Your task to perform on an android device: change the clock display to show seconds Image 0: 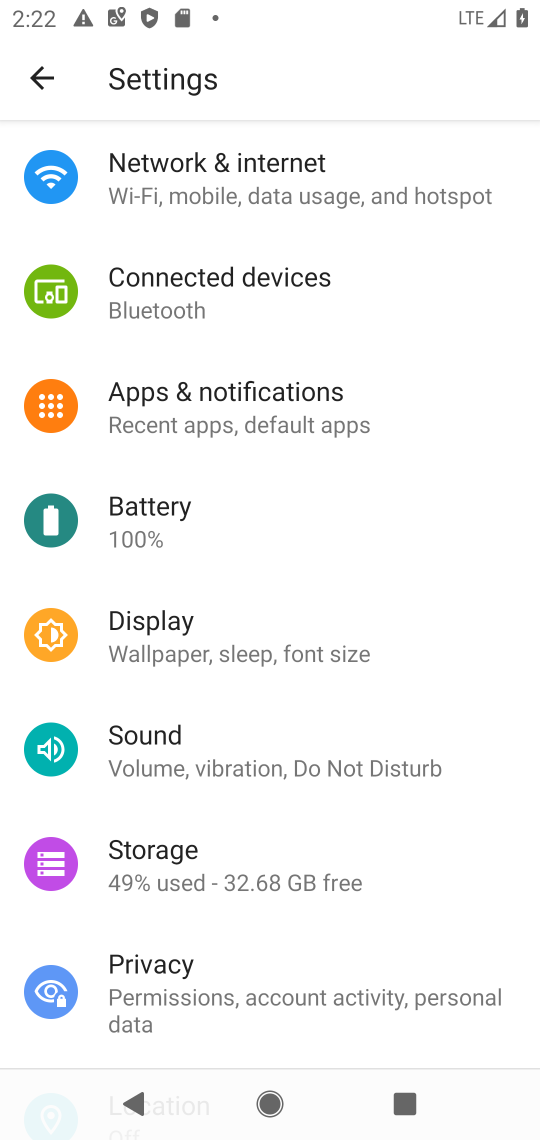
Step 0: press home button
Your task to perform on an android device: change the clock display to show seconds Image 1: 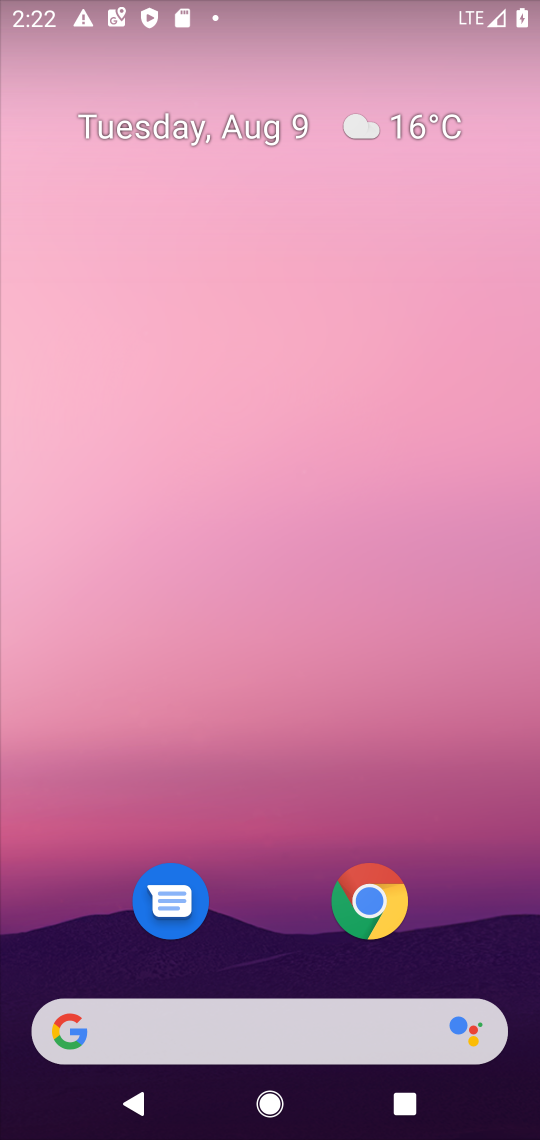
Step 1: drag from (500, 958) to (431, 414)
Your task to perform on an android device: change the clock display to show seconds Image 2: 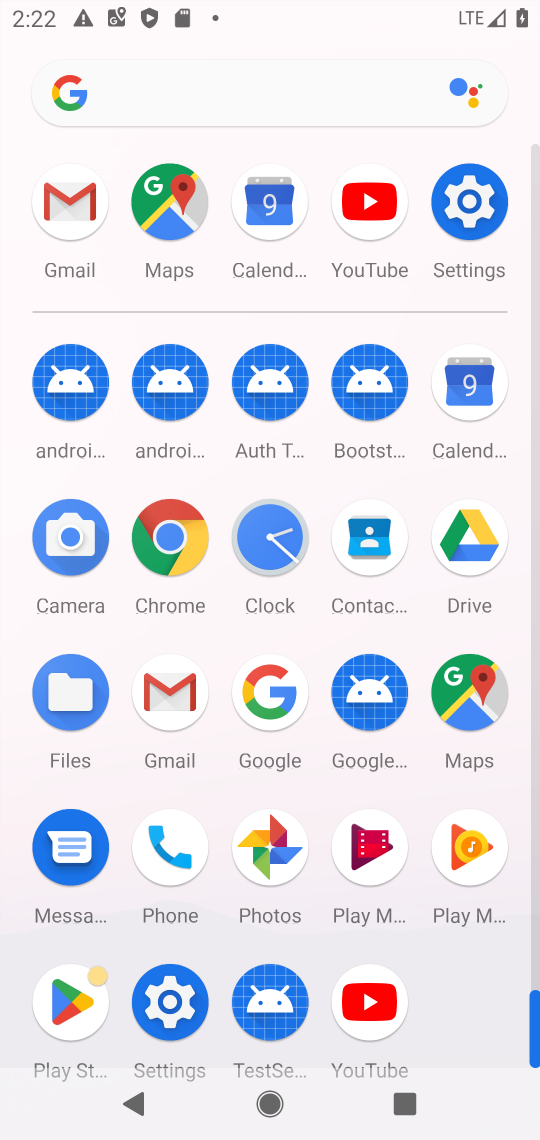
Step 2: click (269, 535)
Your task to perform on an android device: change the clock display to show seconds Image 3: 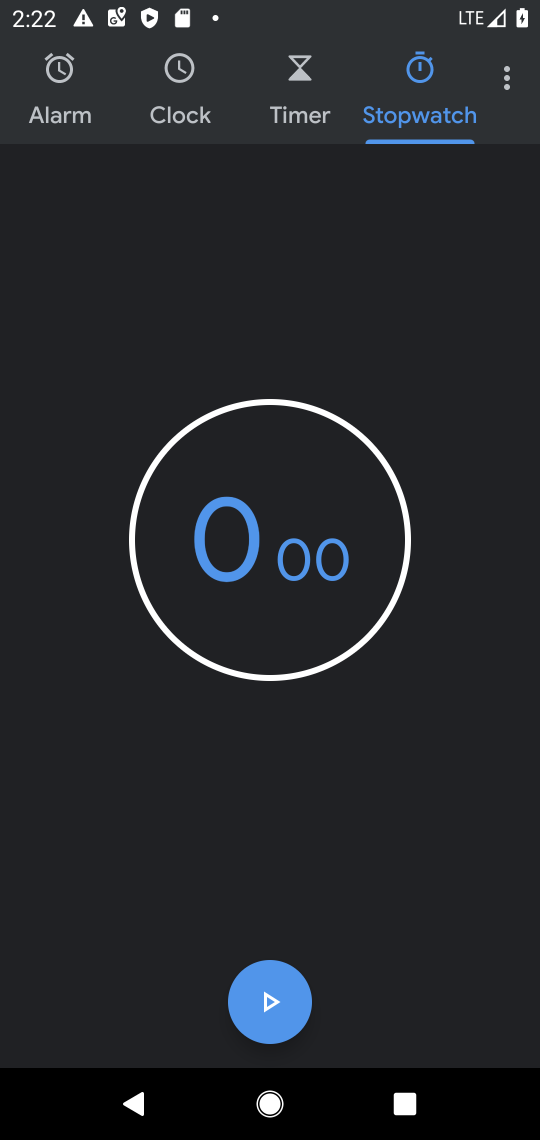
Step 3: click (501, 88)
Your task to perform on an android device: change the clock display to show seconds Image 4: 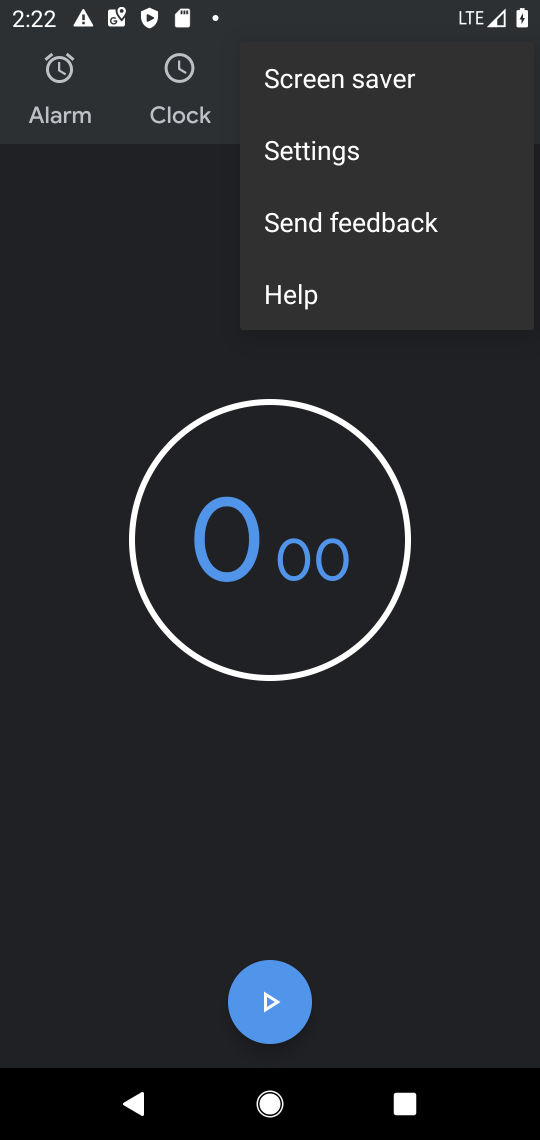
Step 4: click (303, 146)
Your task to perform on an android device: change the clock display to show seconds Image 5: 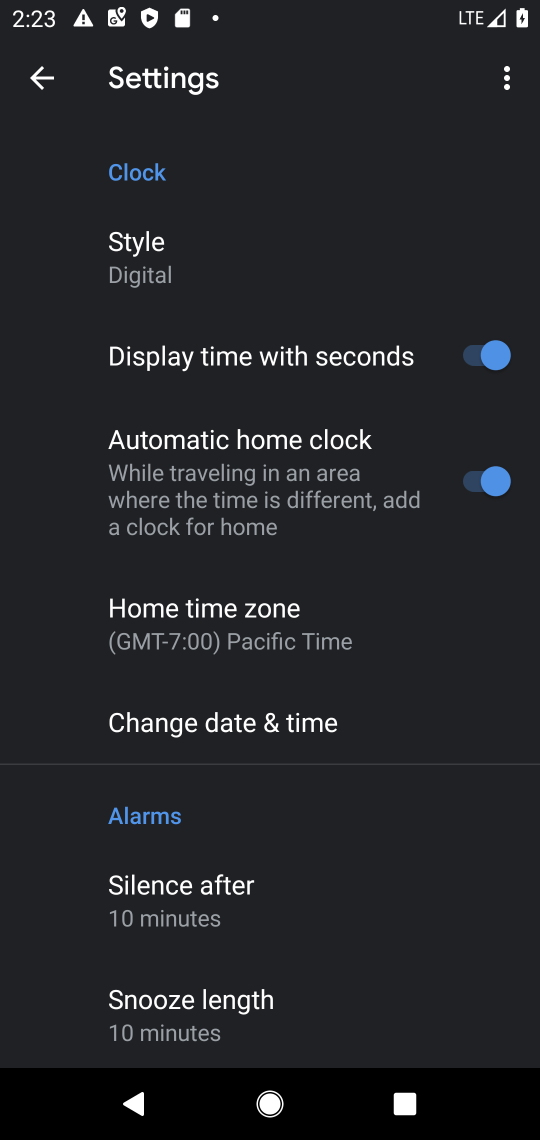
Step 5: task complete